Your task to perform on an android device: turn off smart reply in the gmail app Image 0: 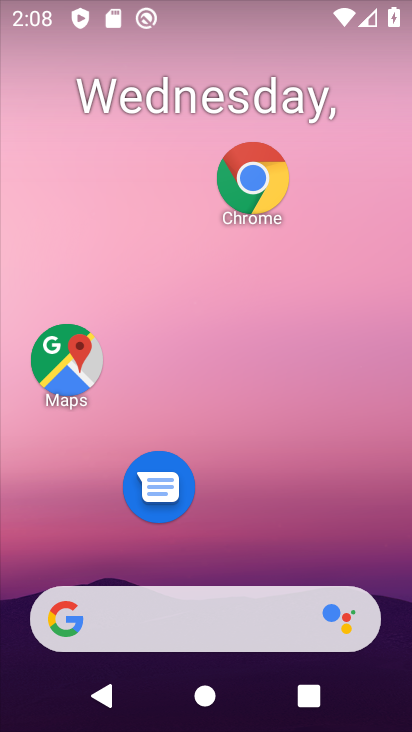
Step 0: drag from (268, 556) to (271, 16)
Your task to perform on an android device: turn off smart reply in the gmail app Image 1: 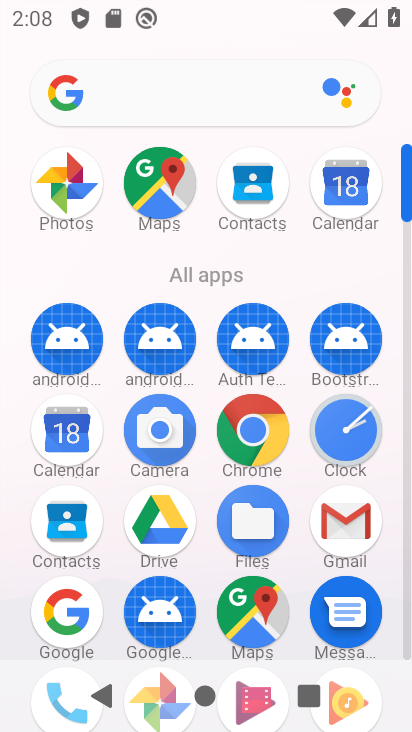
Step 1: click (345, 522)
Your task to perform on an android device: turn off smart reply in the gmail app Image 2: 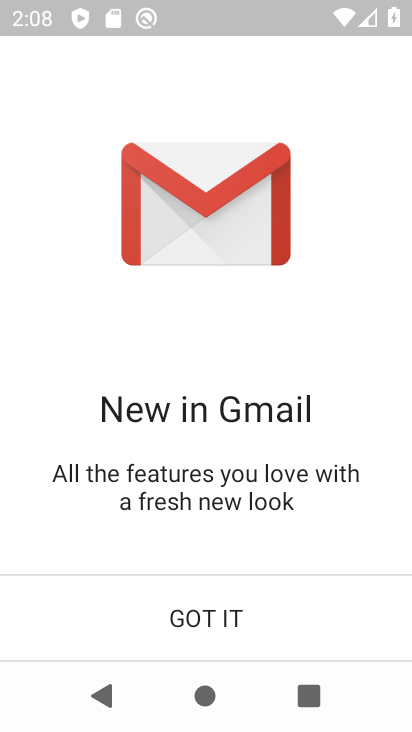
Step 2: click (182, 607)
Your task to perform on an android device: turn off smart reply in the gmail app Image 3: 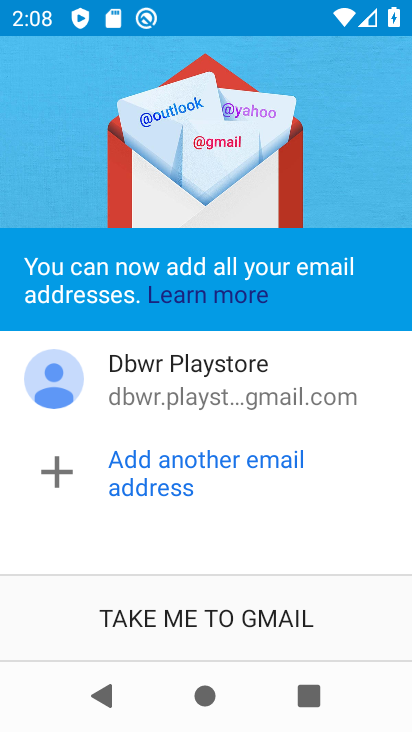
Step 3: click (189, 616)
Your task to perform on an android device: turn off smart reply in the gmail app Image 4: 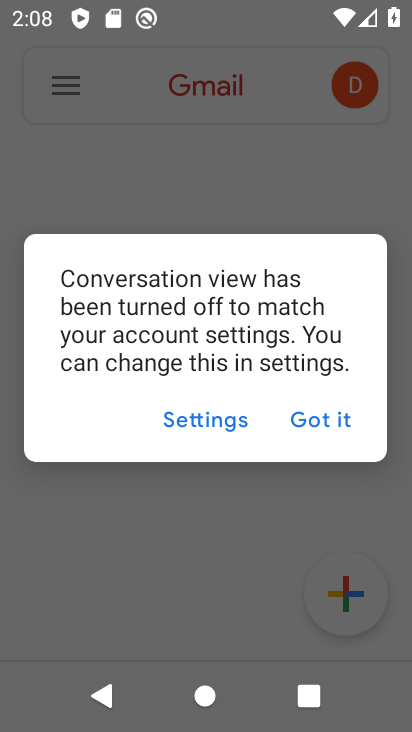
Step 4: click (324, 427)
Your task to perform on an android device: turn off smart reply in the gmail app Image 5: 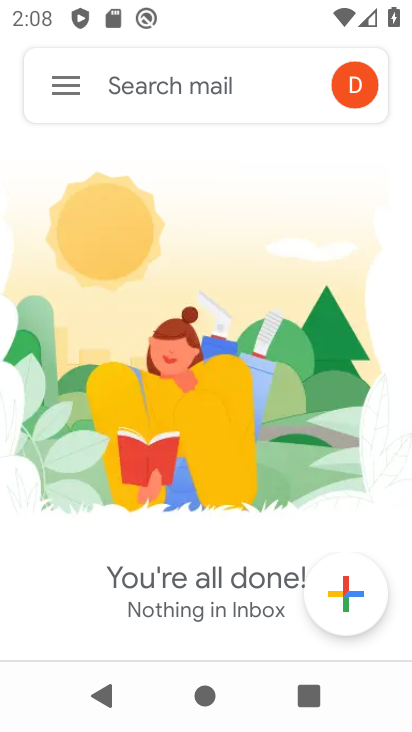
Step 5: click (57, 82)
Your task to perform on an android device: turn off smart reply in the gmail app Image 6: 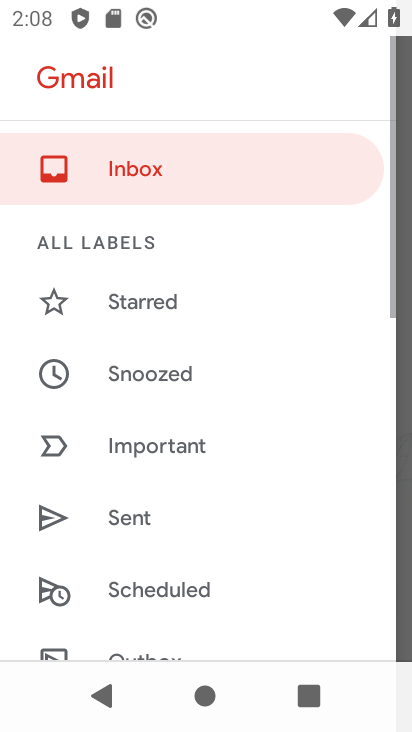
Step 6: drag from (149, 571) to (160, 220)
Your task to perform on an android device: turn off smart reply in the gmail app Image 7: 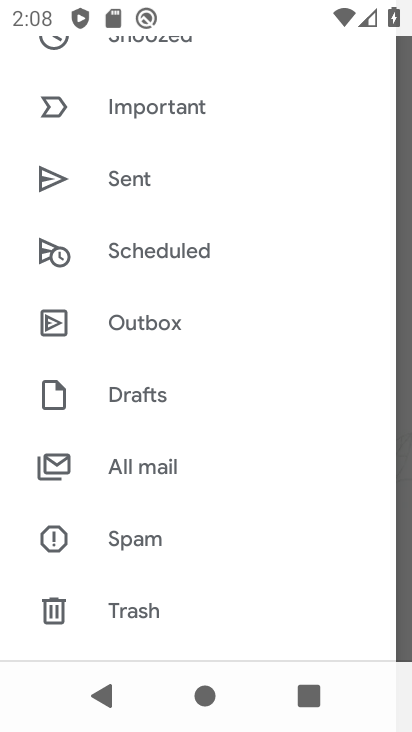
Step 7: drag from (201, 599) to (206, 245)
Your task to perform on an android device: turn off smart reply in the gmail app Image 8: 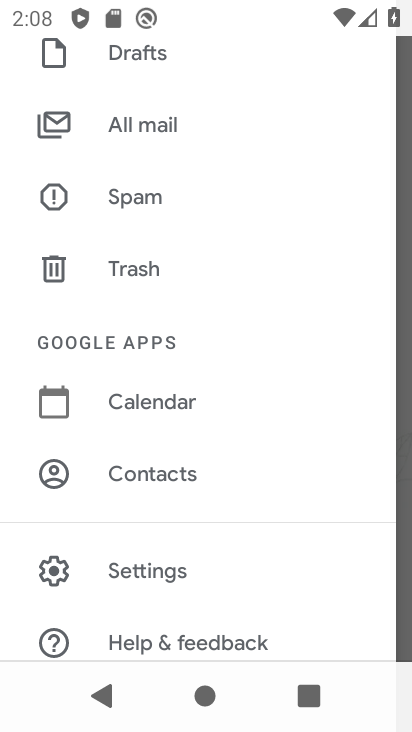
Step 8: click (184, 562)
Your task to perform on an android device: turn off smart reply in the gmail app Image 9: 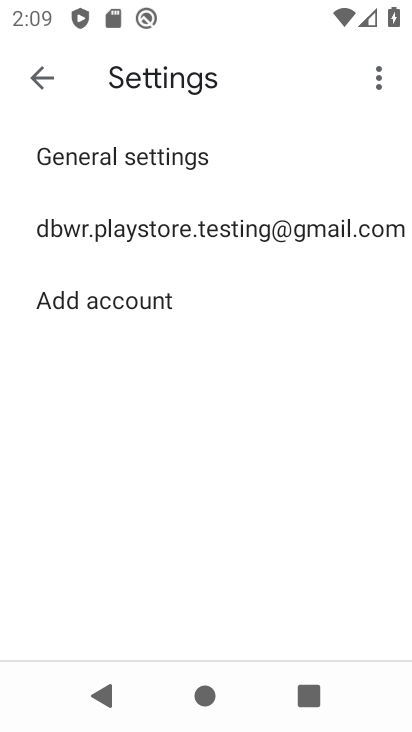
Step 9: click (240, 228)
Your task to perform on an android device: turn off smart reply in the gmail app Image 10: 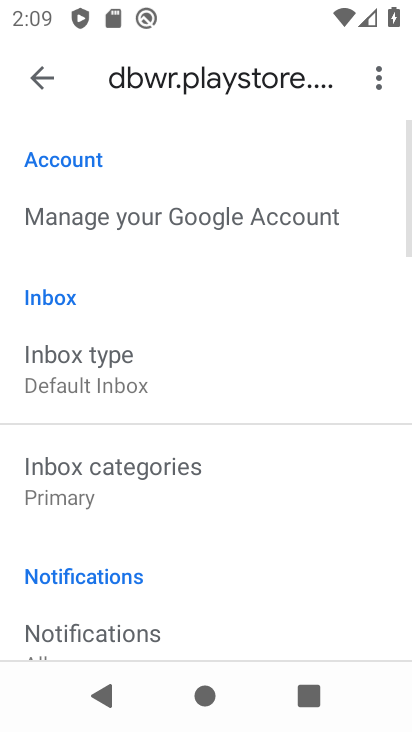
Step 10: drag from (205, 549) to (209, 239)
Your task to perform on an android device: turn off smart reply in the gmail app Image 11: 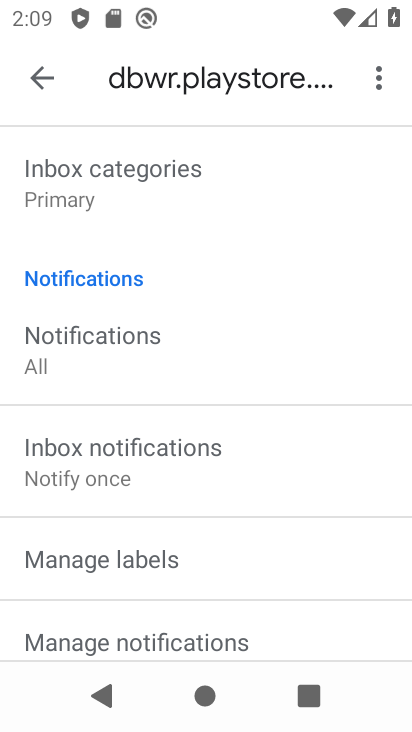
Step 11: click (198, 316)
Your task to perform on an android device: turn off smart reply in the gmail app Image 12: 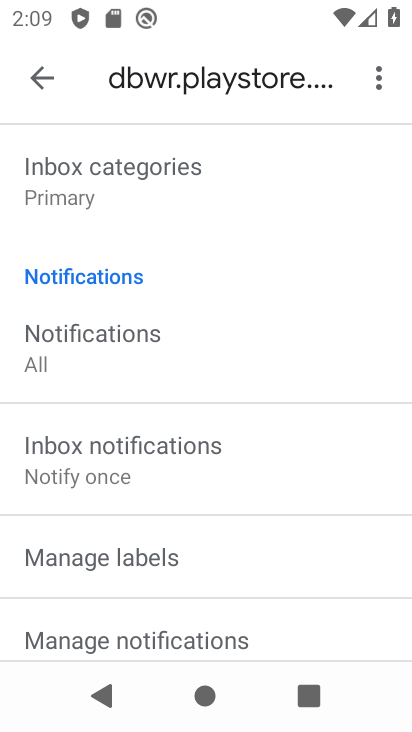
Step 12: drag from (119, 552) to (142, 228)
Your task to perform on an android device: turn off smart reply in the gmail app Image 13: 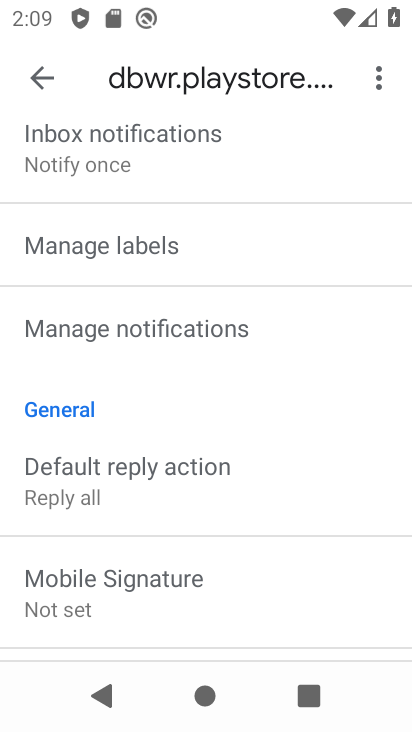
Step 13: drag from (151, 591) to (182, 258)
Your task to perform on an android device: turn off smart reply in the gmail app Image 14: 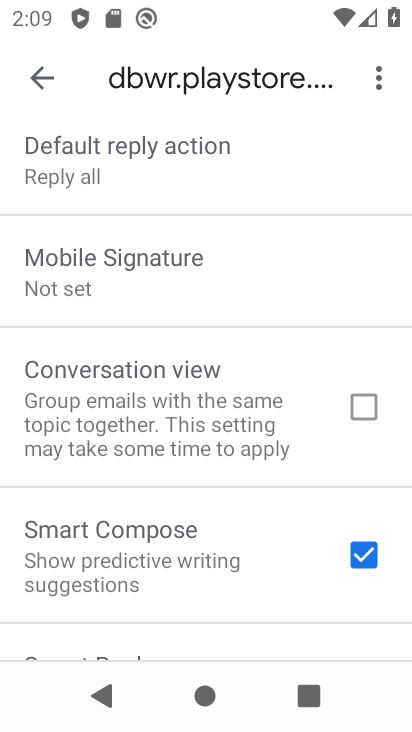
Step 14: drag from (161, 523) to (167, 341)
Your task to perform on an android device: turn off smart reply in the gmail app Image 15: 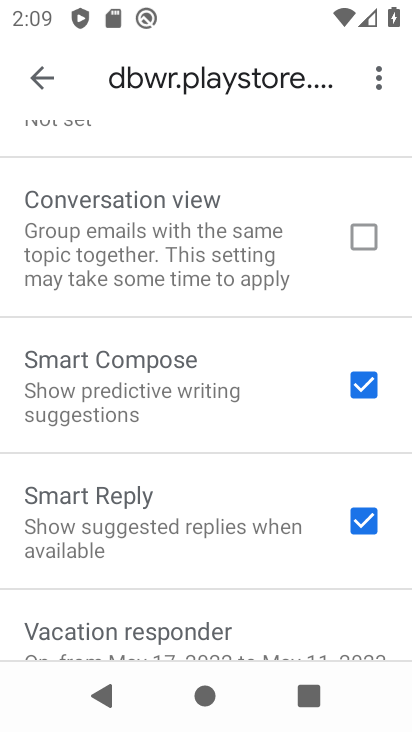
Step 15: click (330, 517)
Your task to perform on an android device: turn off smart reply in the gmail app Image 16: 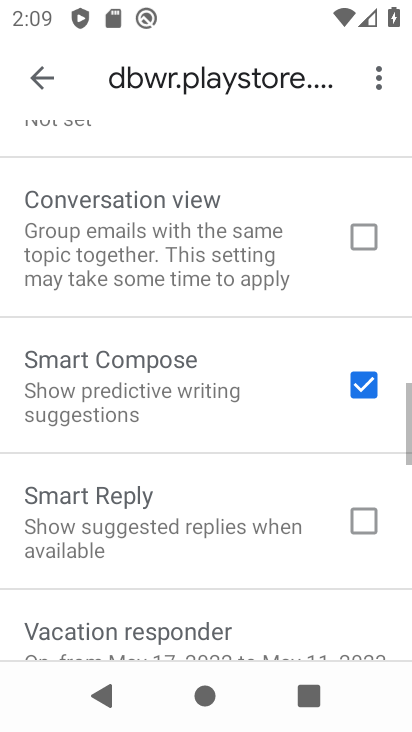
Step 16: task complete